Your task to perform on an android device: toggle show notifications on the lock screen Image 0: 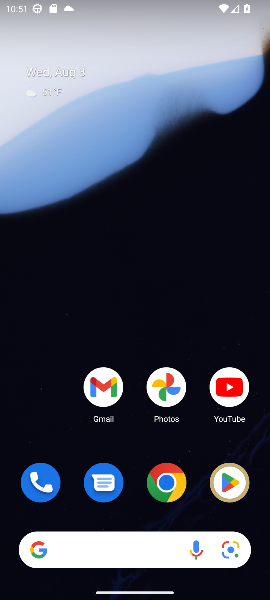
Step 0: drag from (132, 514) to (144, 138)
Your task to perform on an android device: toggle show notifications on the lock screen Image 1: 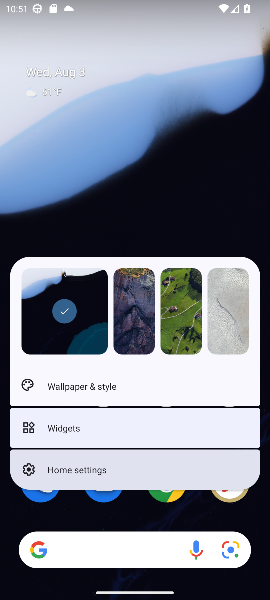
Step 1: click (144, 138)
Your task to perform on an android device: toggle show notifications on the lock screen Image 2: 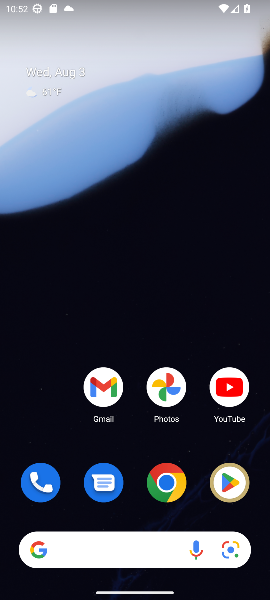
Step 2: drag from (131, 521) to (141, 202)
Your task to perform on an android device: toggle show notifications on the lock screen Image 3: 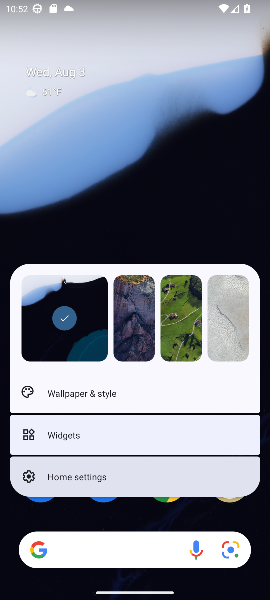
Step 3: click (141, 202)
Your task to perform on an android device: toggle show notifications on the lock screen Image 4: 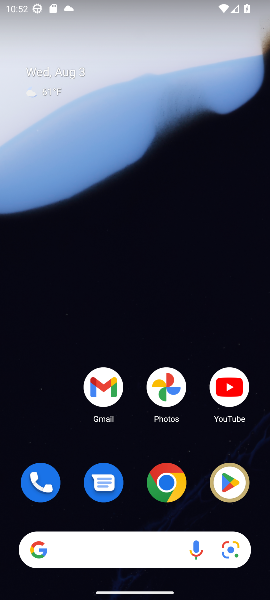
Step 4: drag from (76, 527) to (109, 243)
Your task to perform on an android device: toggle show notifications on the lock screen Image 5: 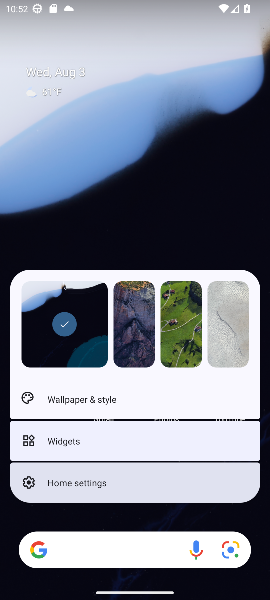
Step 5: click (109, 243)
Your task to perform on an android device: toggle show notifications on the lock screen Image 6: 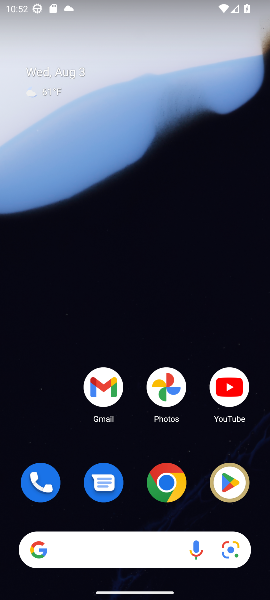
Step 6: drag from (135, 526) to (103, 16)
Your task to perform on an android device: toggle show notifications on the lock screen Image 7: 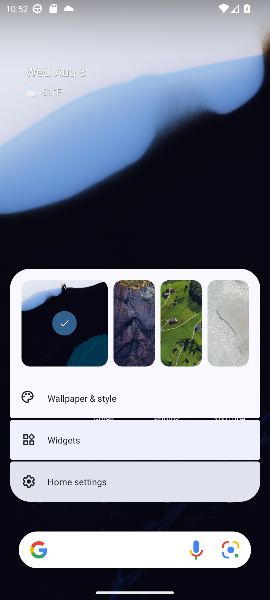
Step 7: click (103, 16)
Your task to perform on an android device: toggle show notifications on the lock screen Image 8: 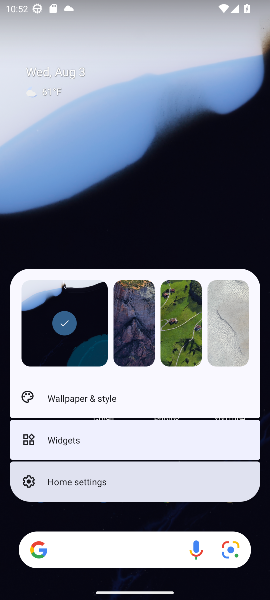
Step 8: click (108, 248)
Your task to perform on an android device: toggle show notifications on the lock screen Image 9: 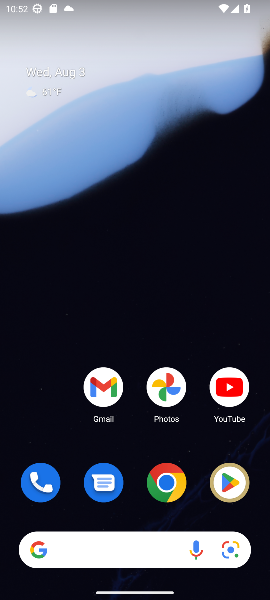
Step 9: click (110, 264)
Your task to perform on an android device: toggle show notifications on the lock screen Image 10: 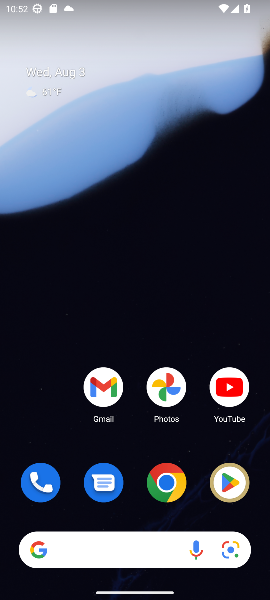
Step 10: drag from (134, 515) to (117, 93)
Your task to perform on an android device: toggle show notifications on the lock screen Image 11: 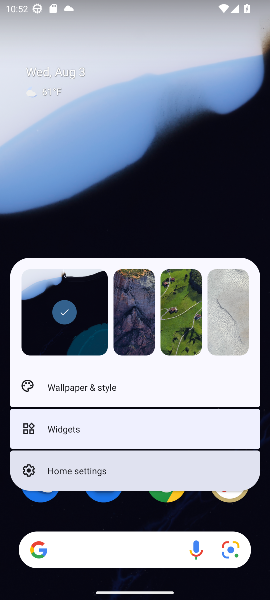
Step 11: click (117, 93)
Your task to perform on an android device: toggle show notifications on the lock screen Image 12: 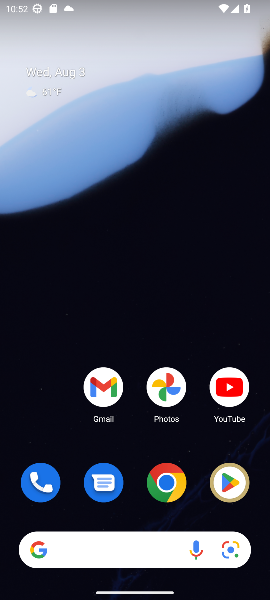
Step 12: drag from (138, 519) to (85, 53)
Your task to perform on an android device: toggle show notifications on the lock screen Image 13: 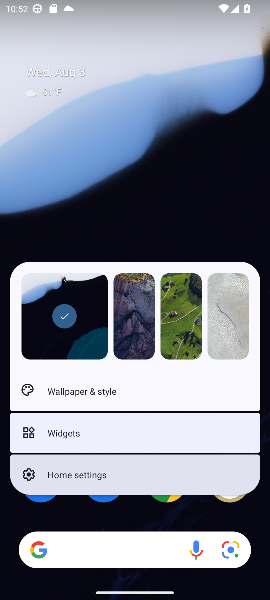
Step 13: click (83, 211)
Your task to perform on an android device: toggle show notifications on the lock screen Image 14: 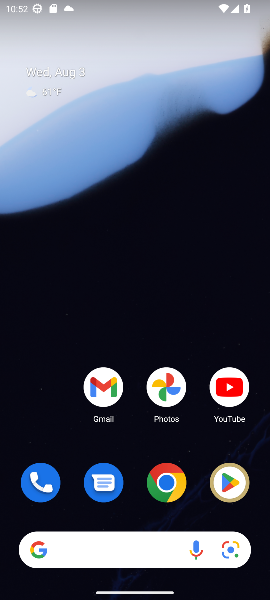
Step 14: drag from (74, 527) to (69, 220)
Your task to perform on an android device: toggle show notifications on the lock screen Image 15: 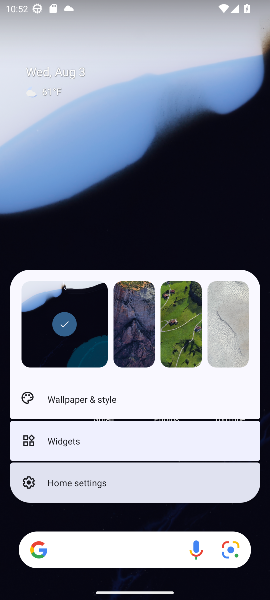
Step 15: click (69, 220)
Your task to perform on an android device: toggle show notifications on the lock screen Image 16: 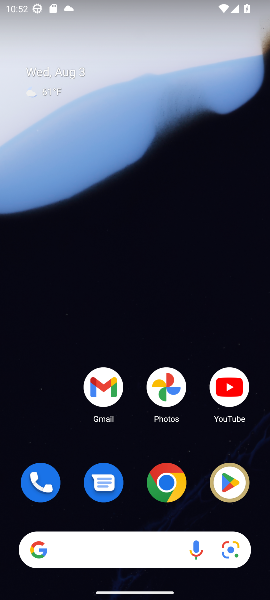
Step 16: task complete